Your task to perform on an android device: Open the phone app and click the voicemail tab. Image 0: 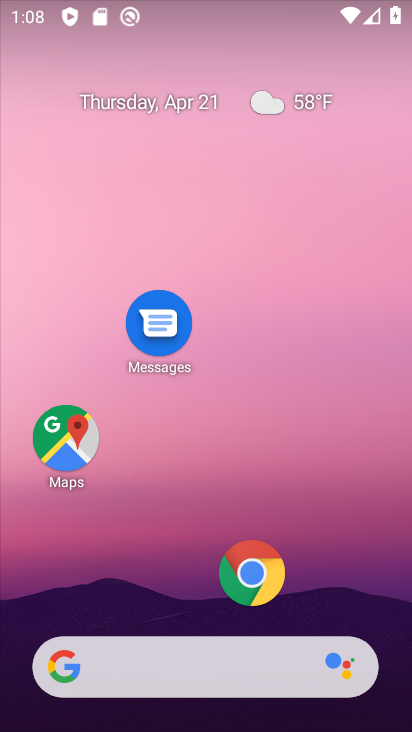
Step 0: drag from (184, 540) to (204, 81)
Your task to perform on an android device: Open the phone app and click the voicemail tab. Image 1: 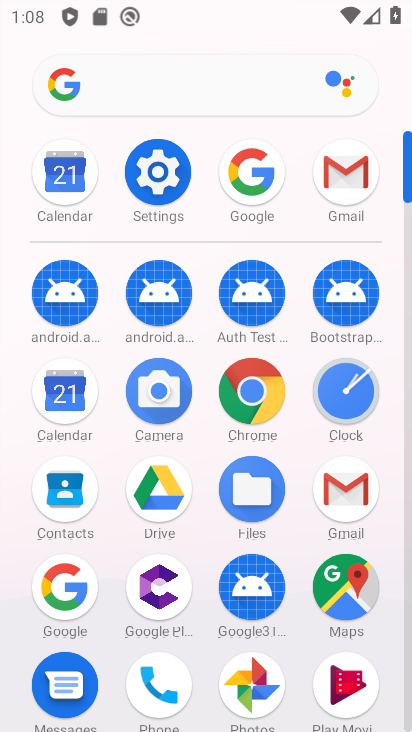
Step 1: drag from (200, 598) to (207, 370)
Your task to perform on an android device: Open the phone app and click the voicemail tab. Image 2: 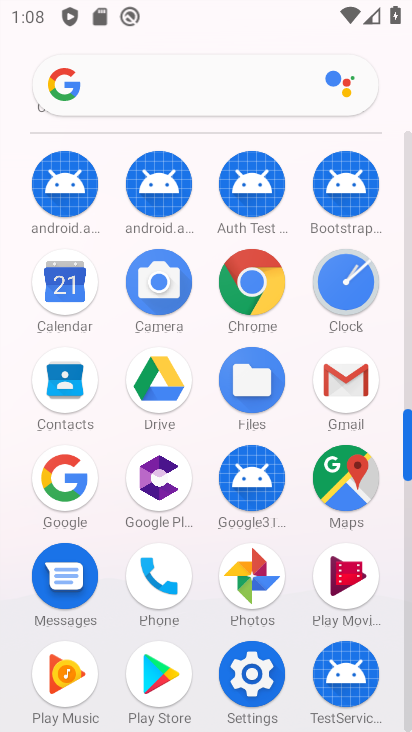
Step 2: click (165, 571)
Your task to perform on an android device: Open the phone app and click the voicemail tab. Image 3: 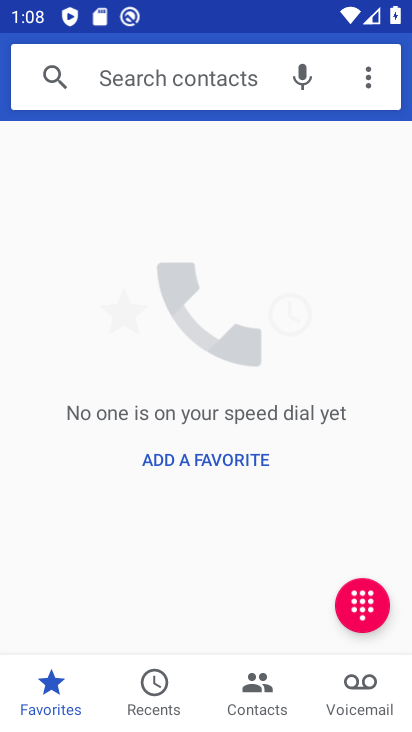
Step 3: click (347, 694)
Your task to perform on an android device: Open the phone app and click the voicemail tab. Image 4: 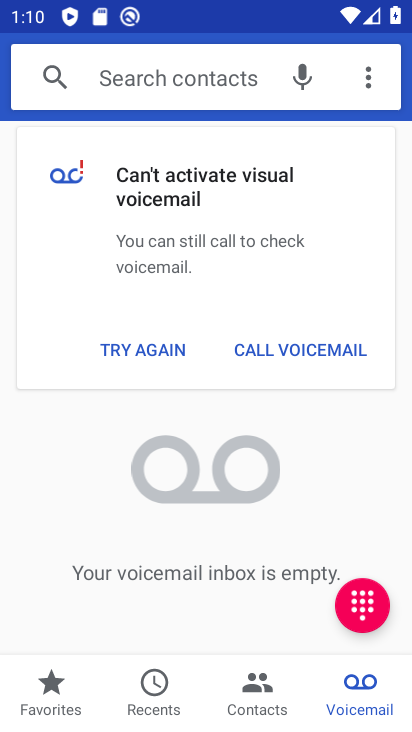
Step 4: task complete